Your task to perform on an android device: open a new tab in the chrome app Image 0: 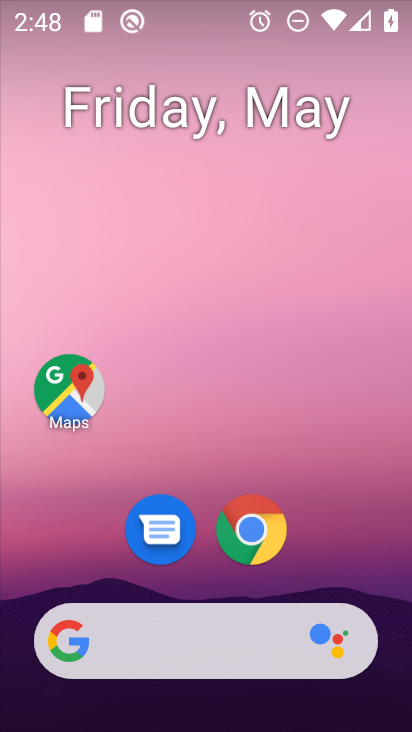
Step 0: click (248, 532)
Your task to perform on an android device: open a new tab in the chrome app Image 1: 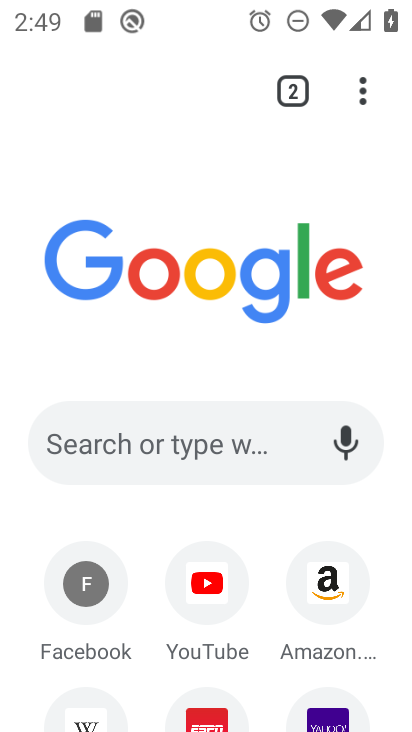
Step 1: task complete